Your task to perform on an android device: open app "Roku - Official Remote Control" (install if not already installed) Image 0: 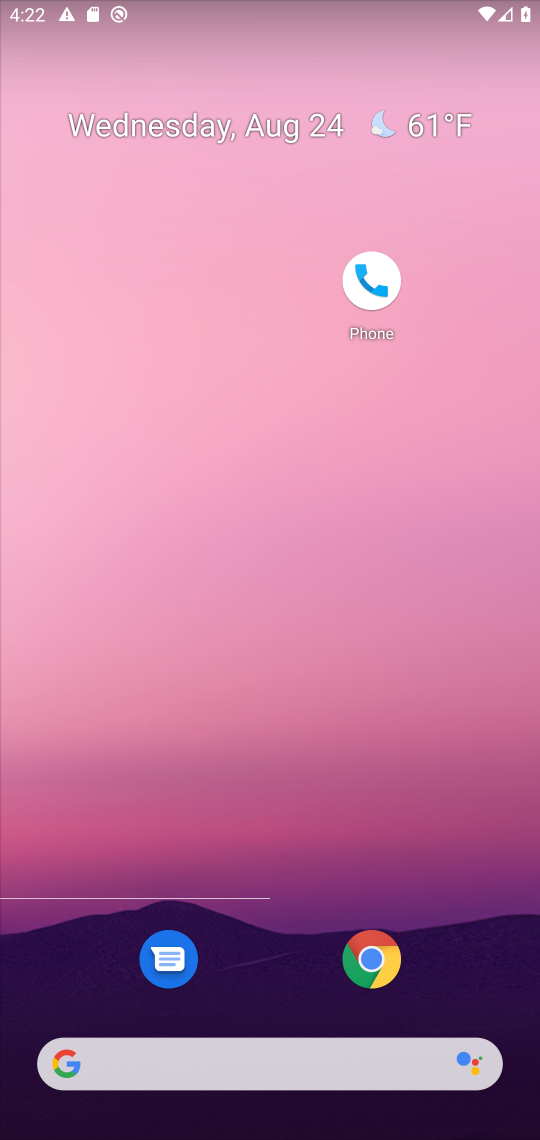
Step 0: drag from (301, 979) to (297, 91)
Your task to perform on an android device: open app "Roku - Official Remote Control" (install if not already installed) Image 1: 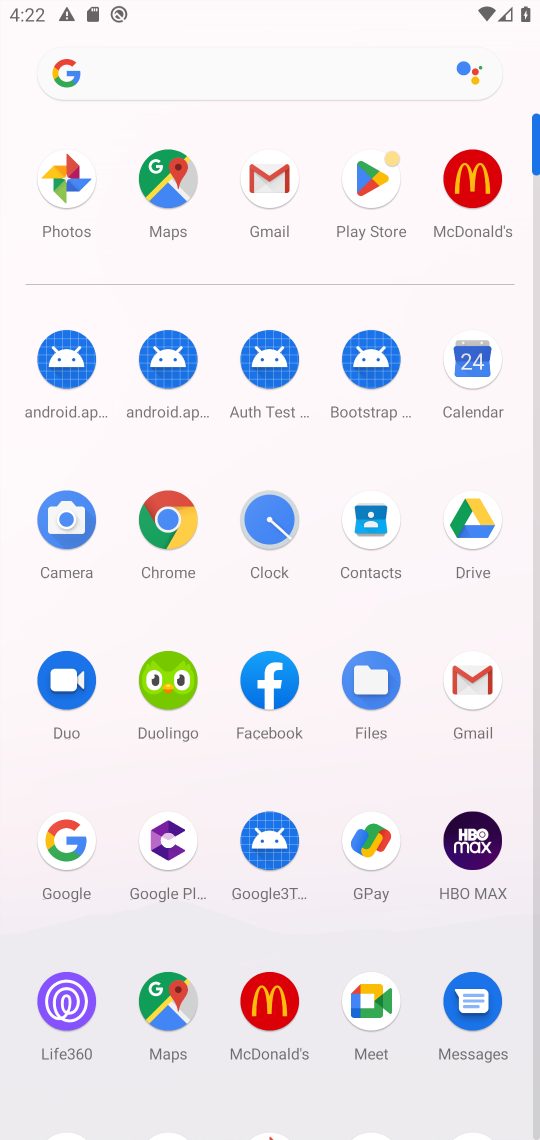
Step 1: click (354, 207)
Your task to perform on an android device: open app "Roku - Official Remote Control" (install if not already installed) Image 2: 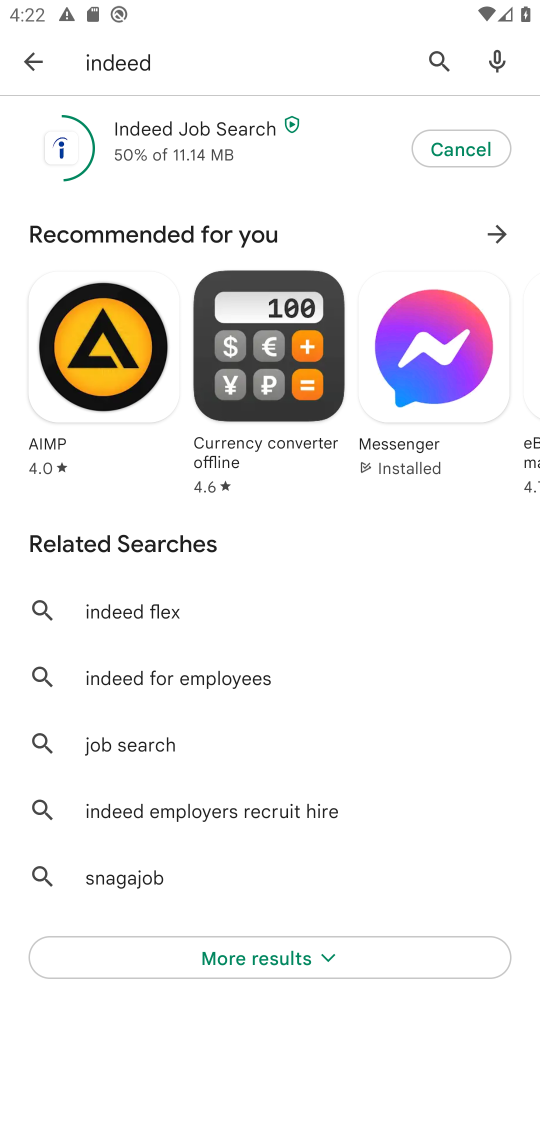
Step 2: click (426, 70)
Your task to perform on an android device: open app "Roku - Official Remote Control" (install if not already installed) Image 3: 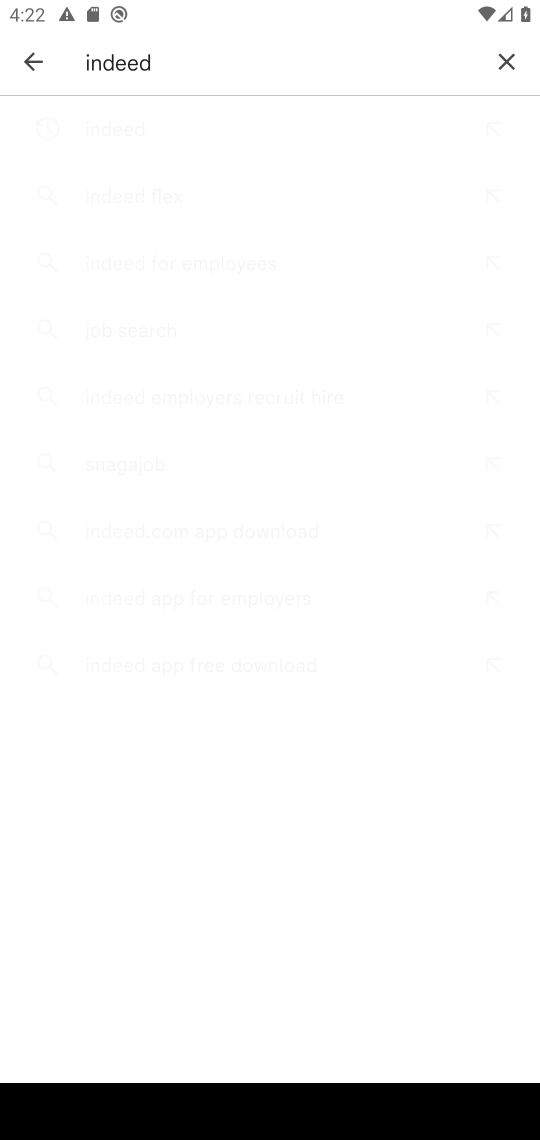
Step 3: click (498, 62)
Your task to perform on an android device: open app "Roku - Official Remote Control" (install if not already installed) Image 4: 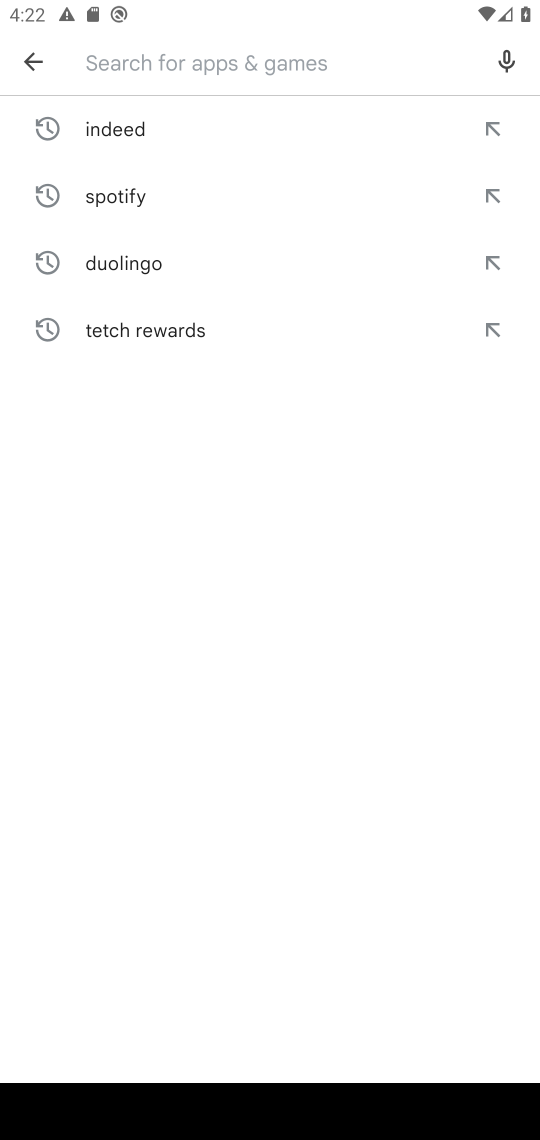
Step 4: type "roku"
Your task to perform on an android device: open app "Roku - Official Remote Control" (install if not already installed) Image 5: 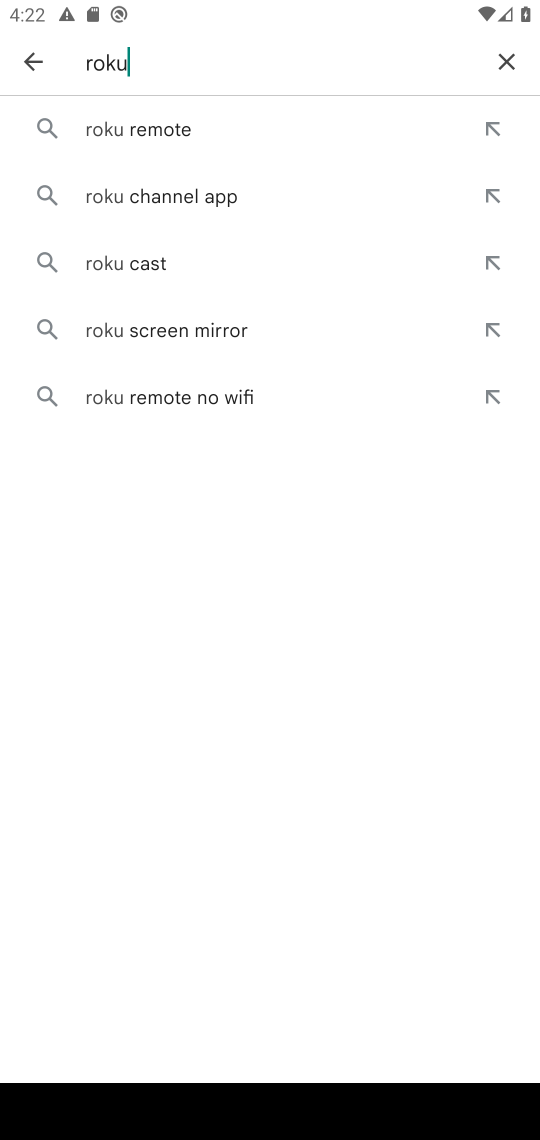
Step 5: click (198, 119)
Your task to perform on an android device: open app "Roku - Official Remote Control" (install if not already installed) Image 6: 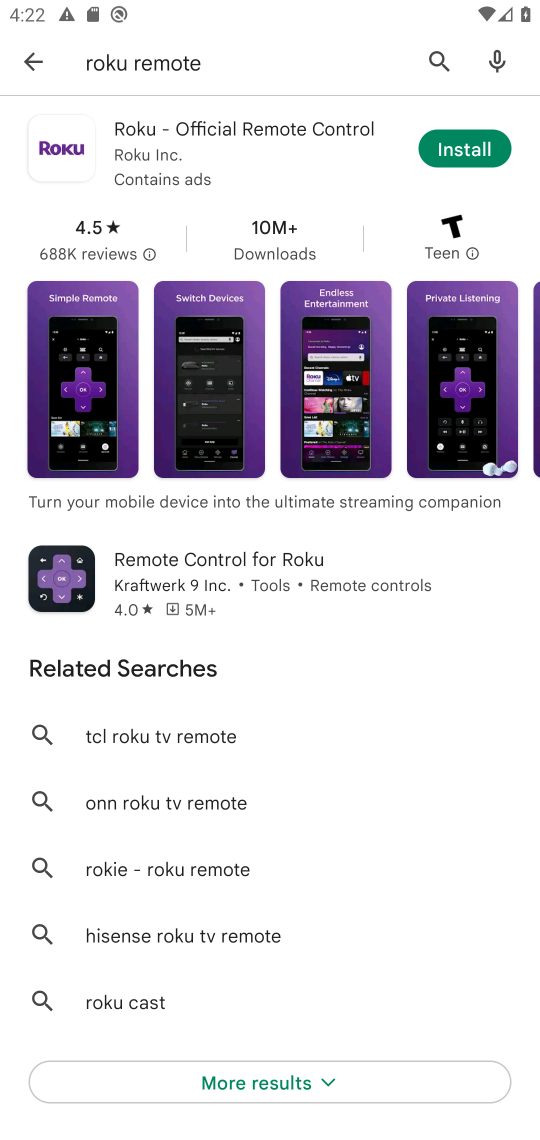
Step 6: click (480, 147)
Your task to perform on an android device: open app "Roku - Official Remote Control" (install if not already installed) Image 7: 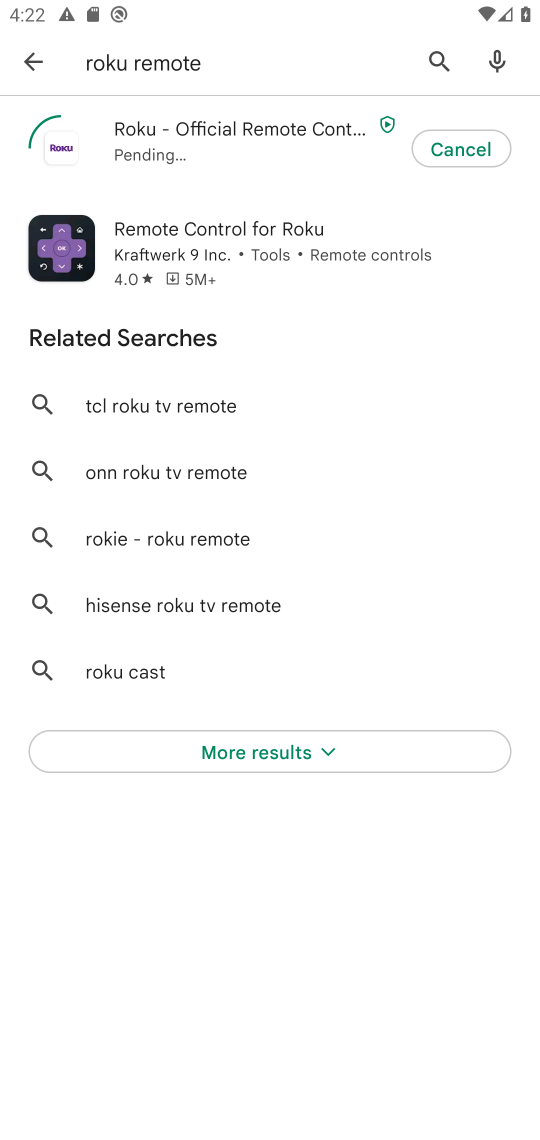
Step 7: task complete